Your task to perform on an android device: open app "Pluto TV - Live TV and Movies" Image 0: 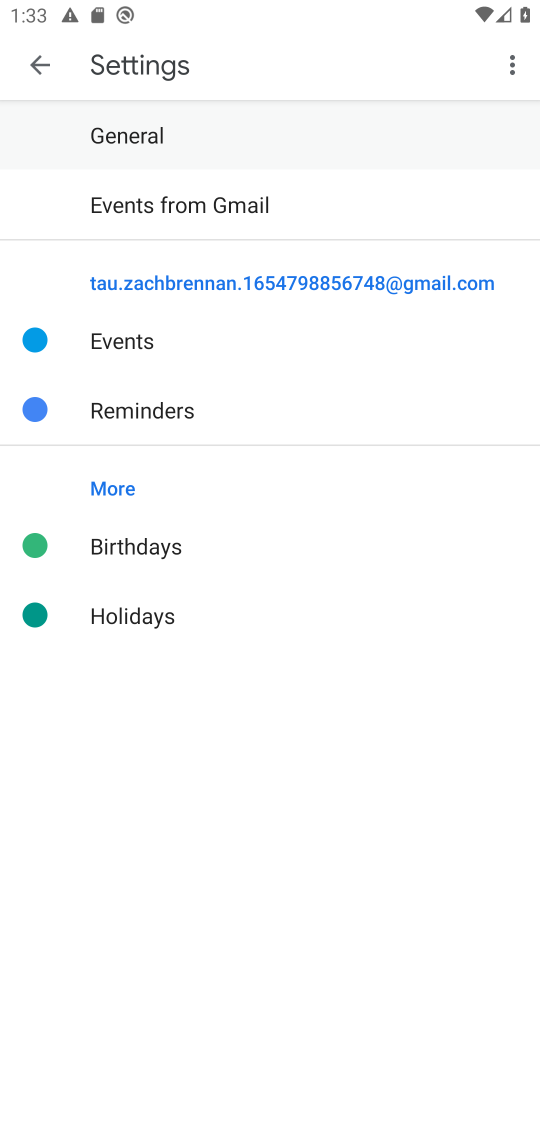
Step 0: press home button
Your task to perform on an android device: open app "Pluto TV - Live TV and Movies" Image 1: 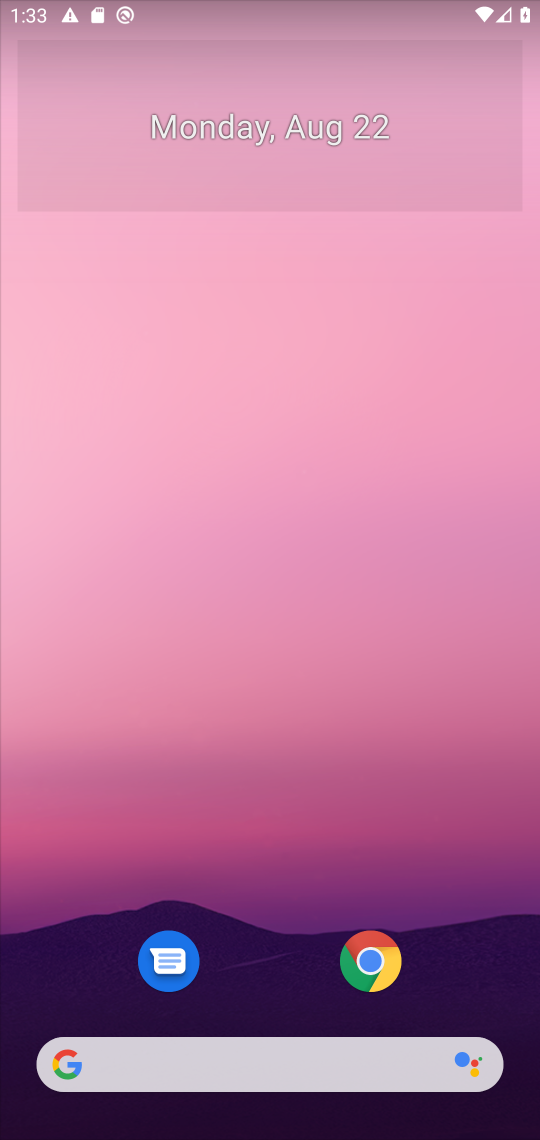
Step 1: drag from (473, 957) to (486, 207)
Your task to perform on an android device: open app "Pluto TV - Live TV and Movies" Image 2: 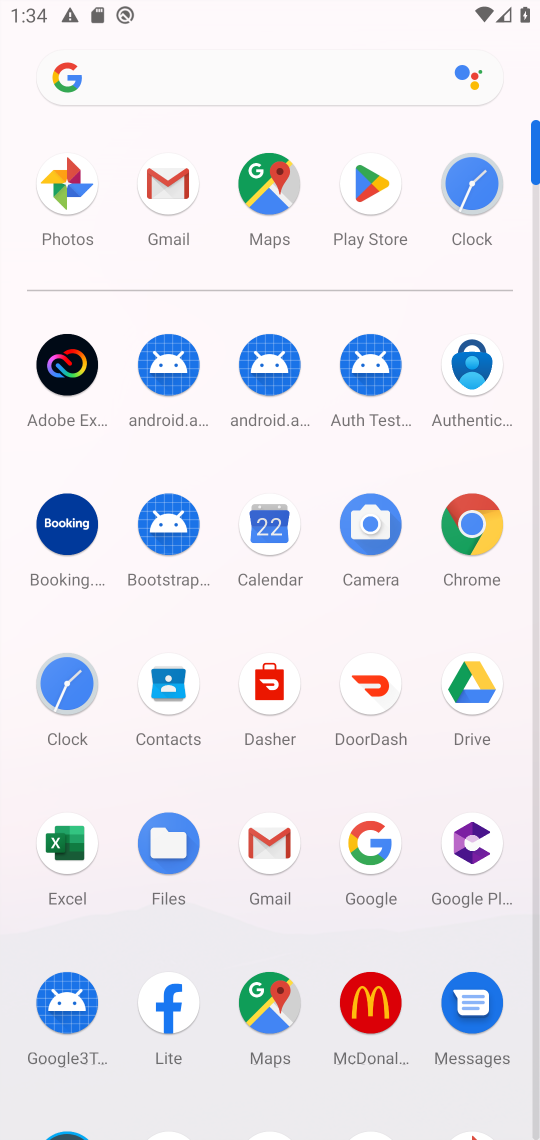
Step 2: click (373, 185)
Your task to perform on an android device: open app "Pluto TV - Live TV and Movies" Image 3: 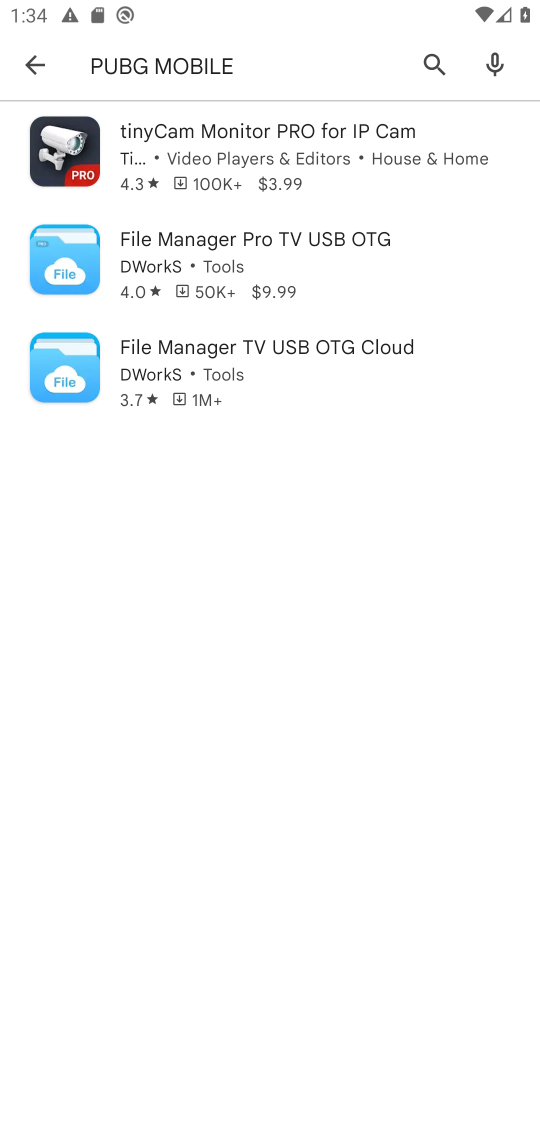
Step 3: press back button
Your task to perform on an android device: open app "Pluto TV - Live TV and Movies" Image 4: 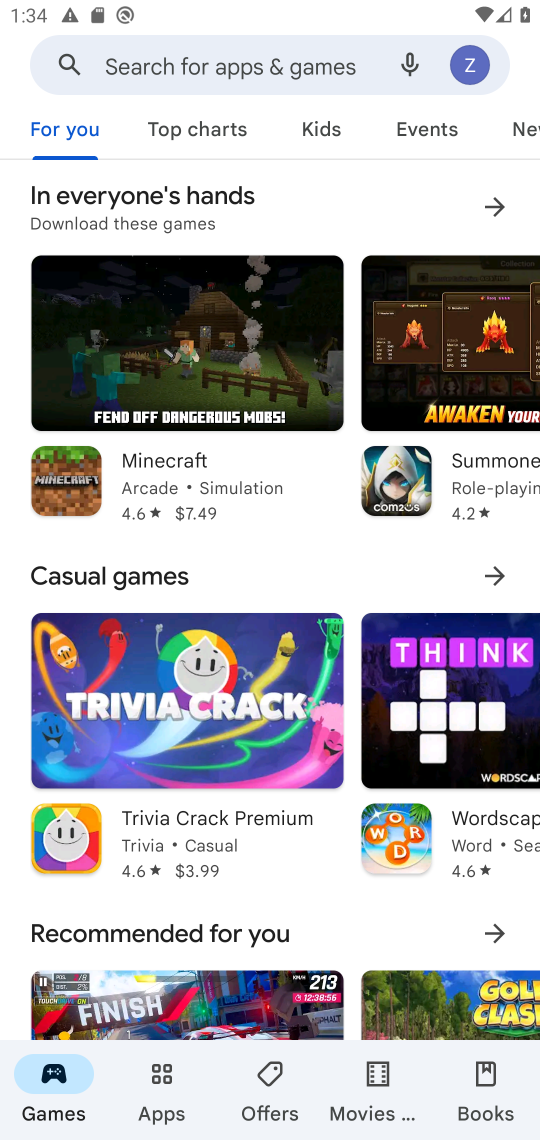
Step 4: click (256, 59)
Your task to perform on an android device: open app "Pluto TV - Live TV and Movies" Image 5: 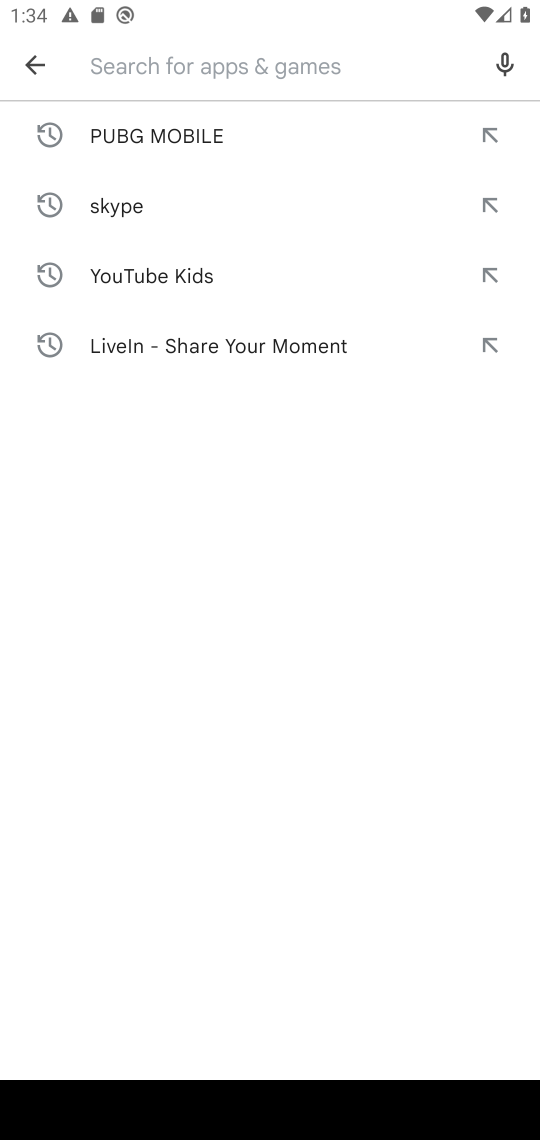
Step 5: type "Pluto TV - Live TV and Movies"
Your task to perform on an android device: open app "Pluto TV - Live TV and Movies" Image 6: 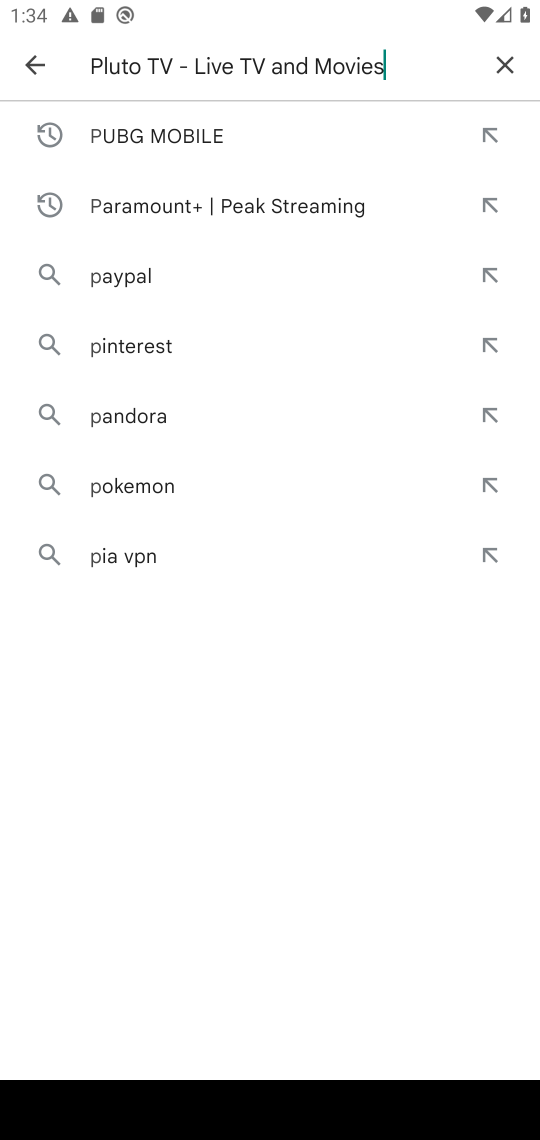
Step 6: press enter
Your task to perform on an android device: open app "Pluto TV - Live TV and Movies" Image 7: 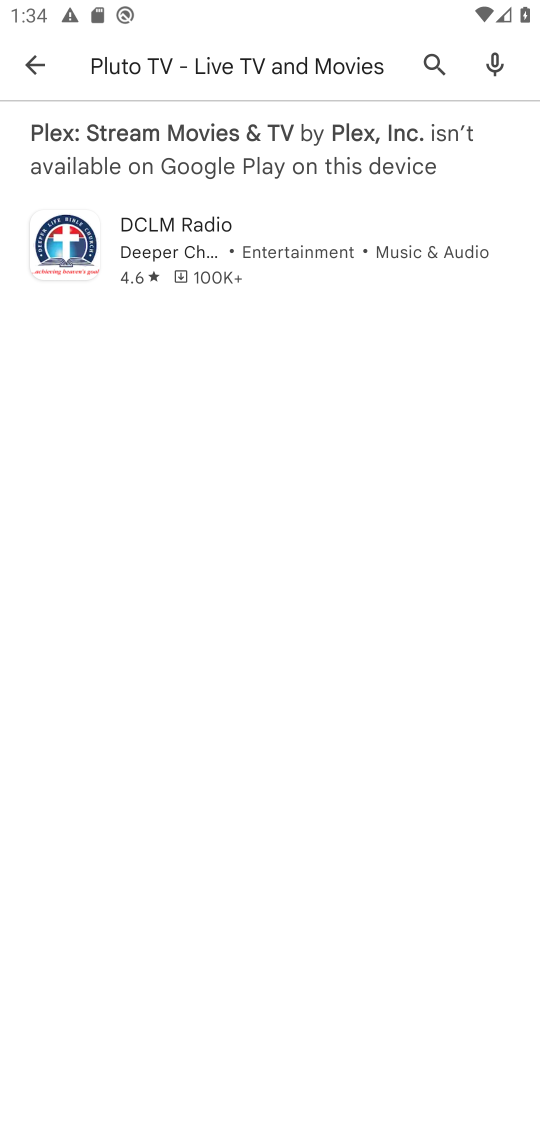
Step 7: task complete